Your task to perform on an android device: open a bookmark in the chrome app Image 0: 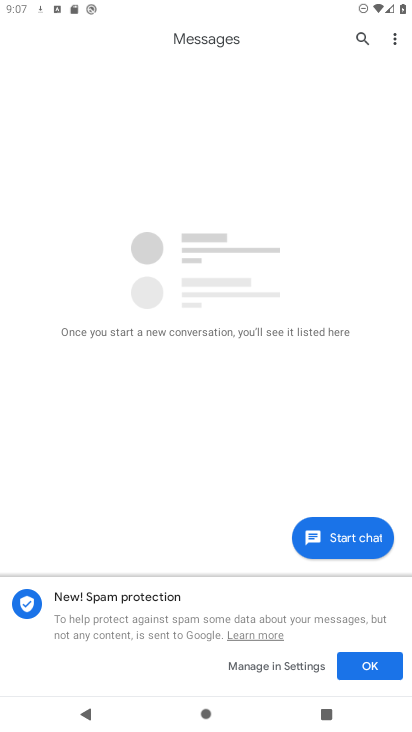
Step 0: press home button
Your task to perform on an android device: open a bookmark in the chrome app Image 1: 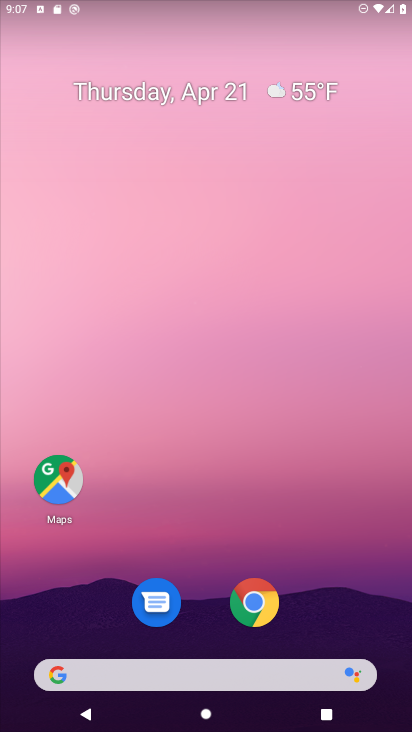
Step 1: click (269, 612)
Your task to perform on an android device: open a bookmark in the chrome app Image 2: 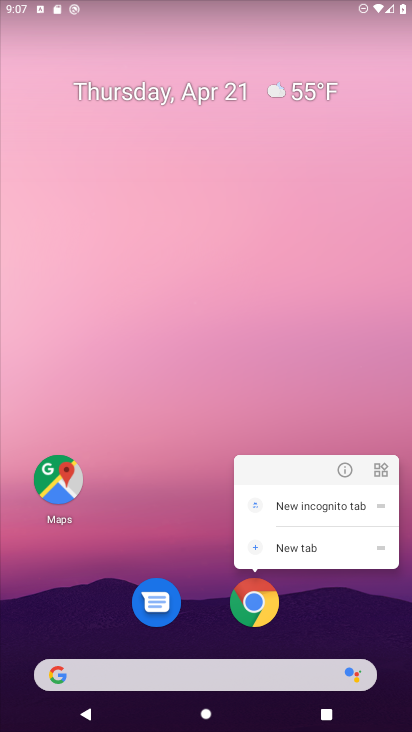
Step 2: click (303, 557)
Your task to perform on an android device: open a bookmark in the chrome app Image 3: 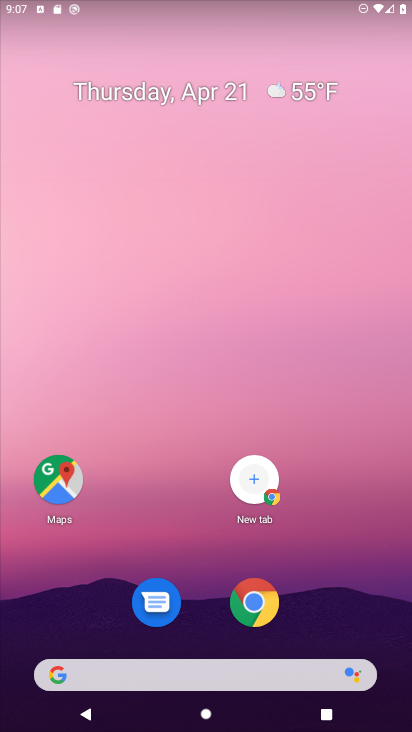
Step 3: click (254, 475)
Your task to perform on an android device: open a bookmark in the chrome app Image 4: 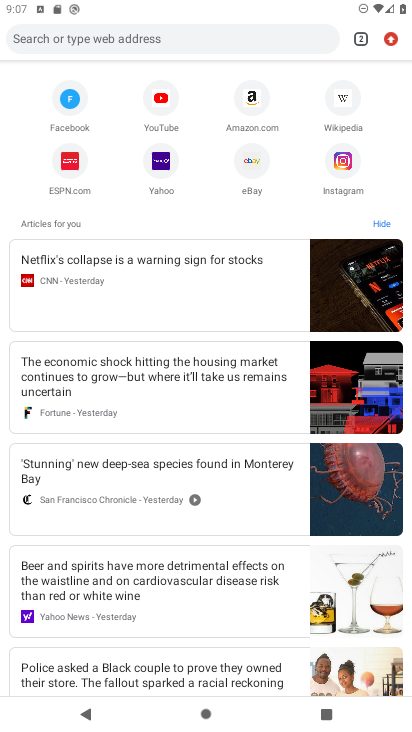
Step 4: click (400, 39)
Your task to perform on an android device: open a bookmark in the chrome app Image 5: 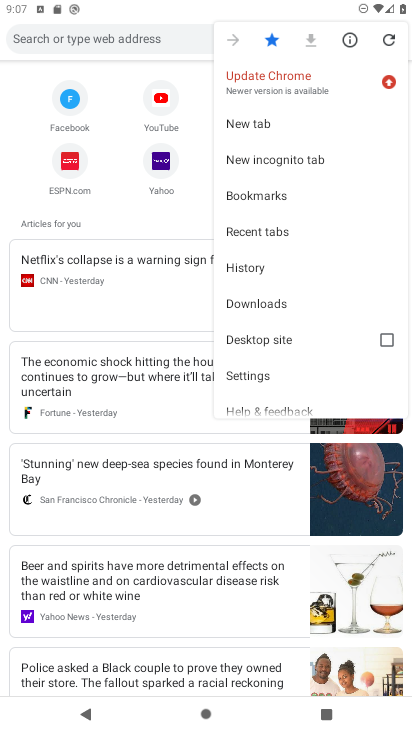
Step 5: click (286, 211)
Your task to perform on an android device: open a bookmark in the chrome app Image 6: 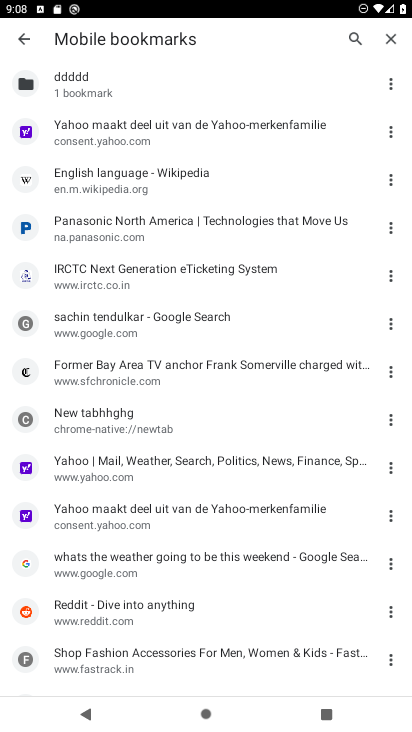
Step 6: click (212, 331)
Your task to perform on an android device: open a bookmark in the chrome app Image 7: 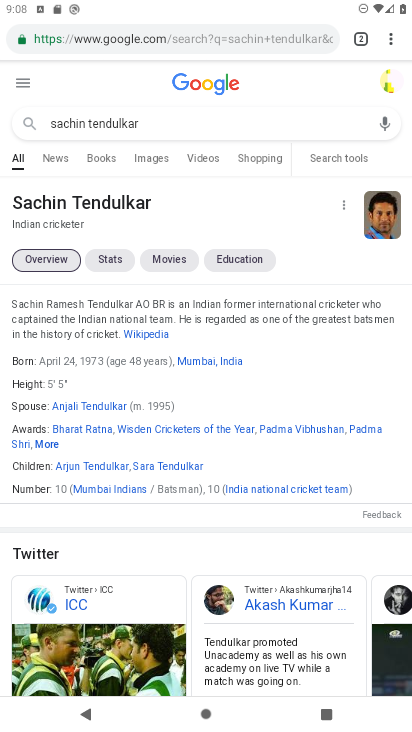
Step 7: task complete